Your task to perform on an android device: Go to Android settings Image 0: 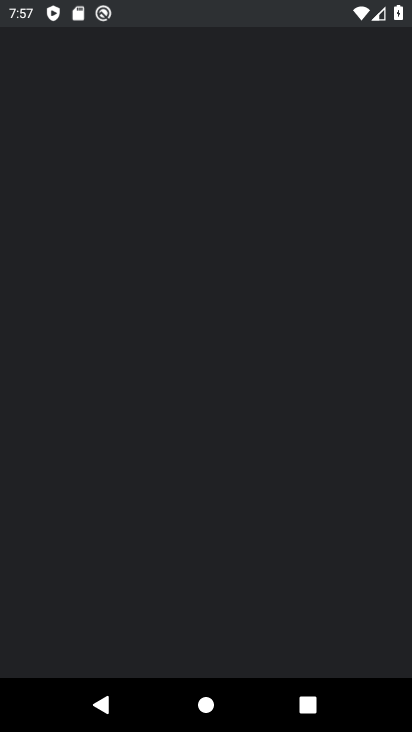
Step 0: drag from (202, 390) to (225, 110)
Your task to perform on an android device: Go to Android settings Image 1: 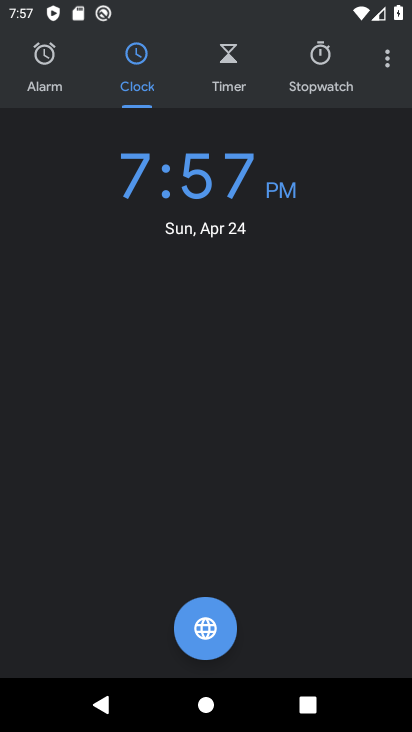
Step 1: press home button
Your task to perform on an android device: Go to Android settings Image 2: 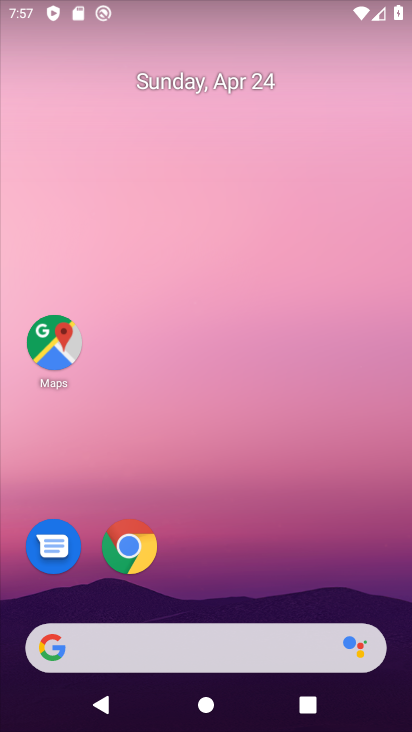
Step 2: drag from (197, 552) to (277, 46)
Your task to perform on an android device: Go to Android settings Image 3: 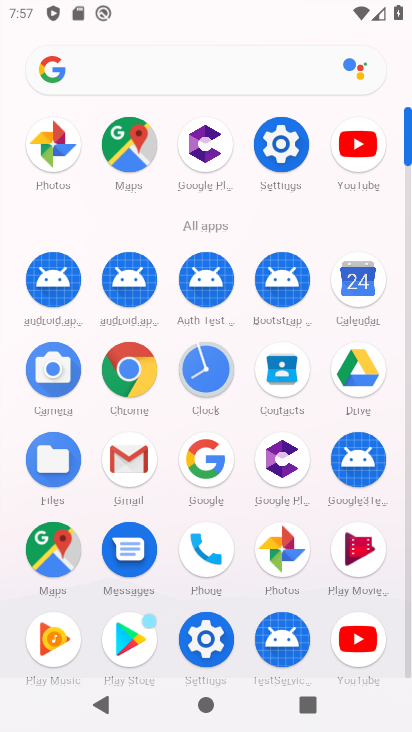
Step 3: click (281, 140)
Your task to perform on an android device: Go to Android settings Image 4: 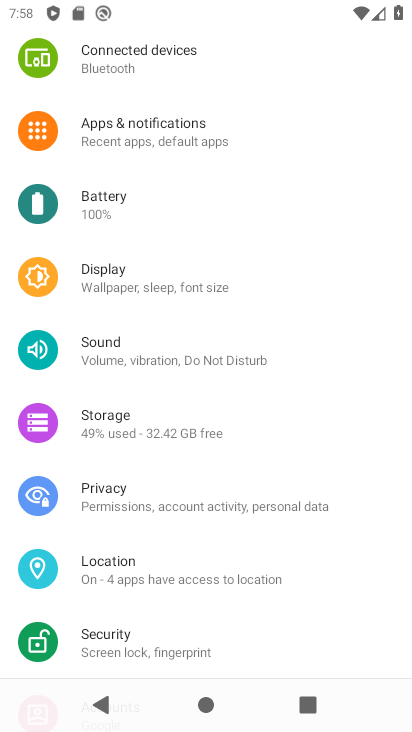
Step 4: drag from (208, 592) to (350, 111)
Your task to perform on an android device: Go to Android settings Image 5: 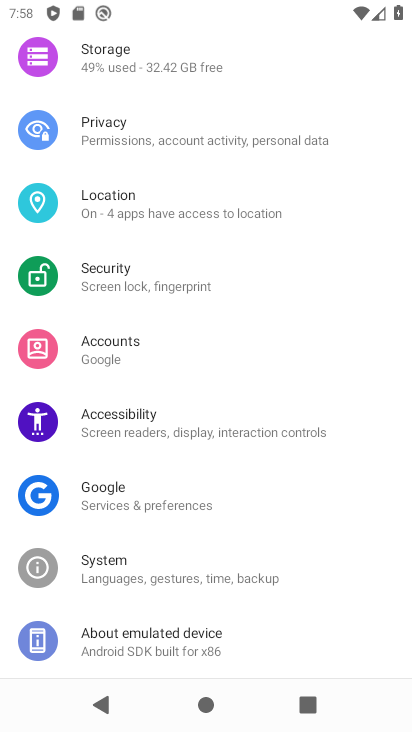
Step 5: click (119, 653)
Your task to perform on an android device: Go to Android settings Image 6: 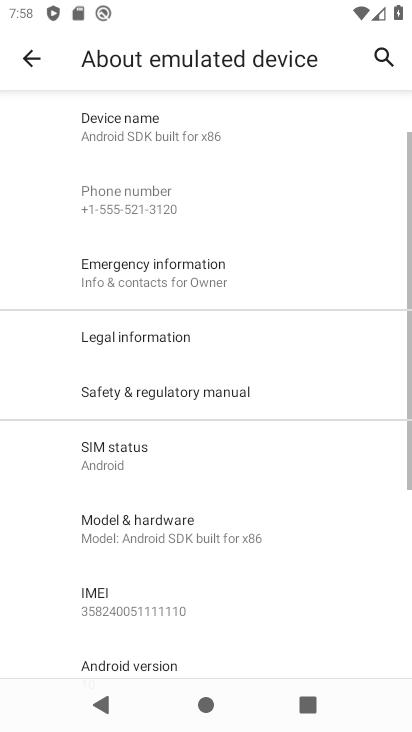
Step 6: drag from (219, 640) to (231, 307)
Your task to perform on an android device: Go to Android settings Image 7: 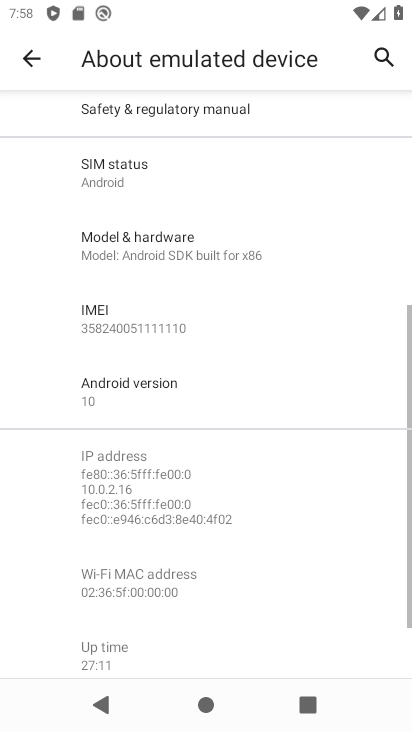
Step 7: click (197, 399)
Your task to perform on an android device: Go to Android settings Image 8: 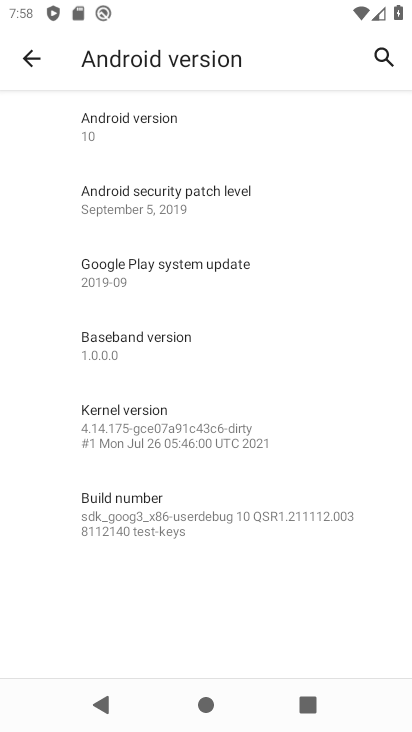
Step 8: task complete